Your task to perform on an android device: Open notification settings Image 0: 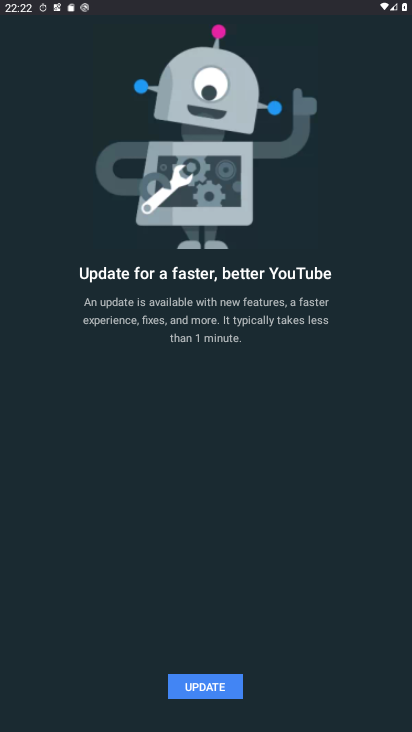
Step 0: press home button
Your task to perform on an android device: Open notification settings Image 1: 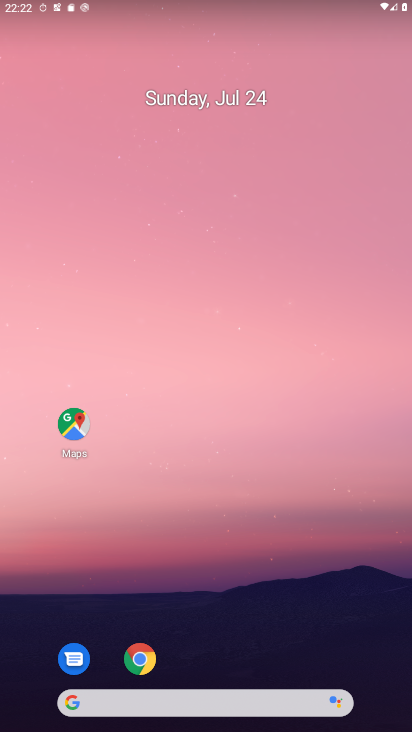
Step 1: drag from (209, 649) to (210, 239)
Your task to perform on an android device: Open notification settings Image 2: 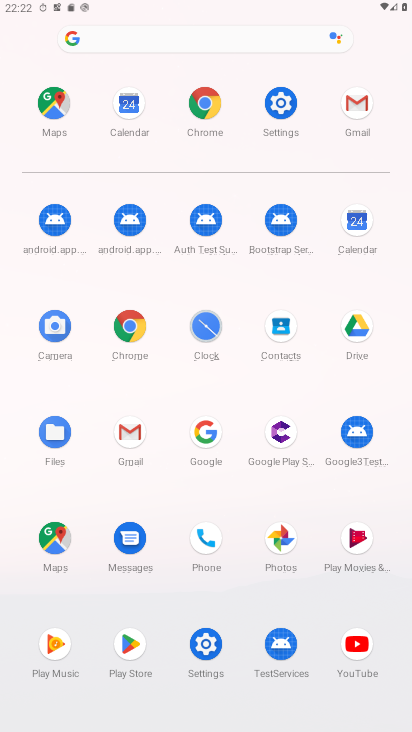
Step 2: click (286, 104)
Your task to perform on an android device: Open notification settings Image 3: 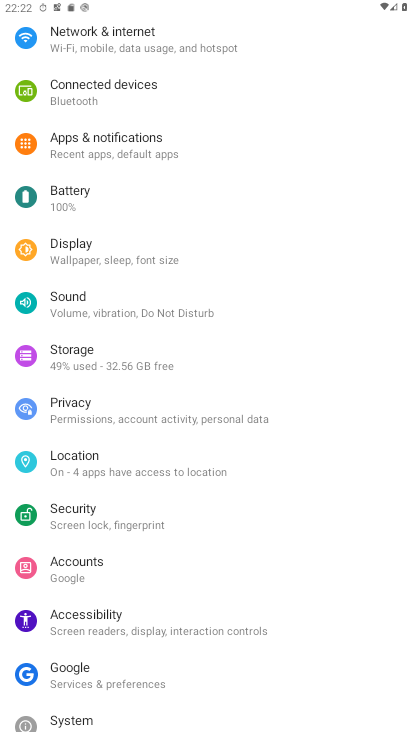
Step 3: click (123, 128)
Your task to perform on an android device: Open notification settings Image 4: 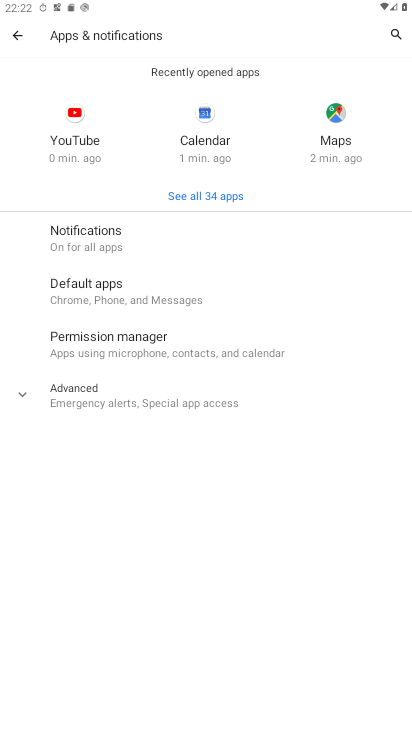
Step 4: click (60, 237)
Your task to perform on an android device: Open notification settings Image 5: 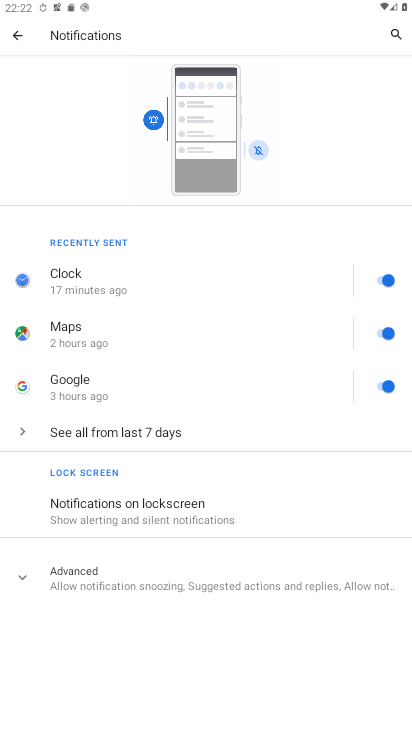
Step 5: task complete